Your task to perform on an android device: Play the last video I watched on Youtube Image 0: 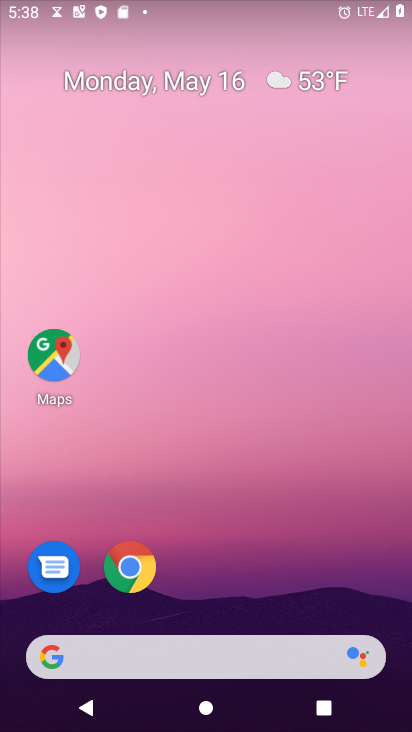
Step 0: drag from (281, 638) to (291, 220)
Your task to perform on an android device: Play the last video I watched on Youtube Image 1: 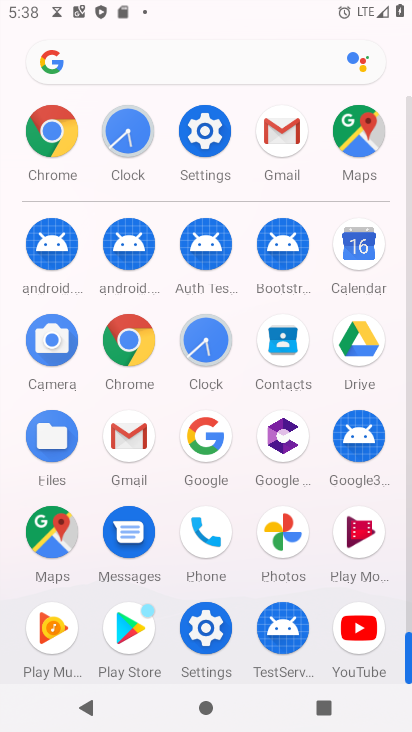
Step 1: click (353, 633)
Your task to perform on an android device: Play the last video I watched on Youtube Image 2: 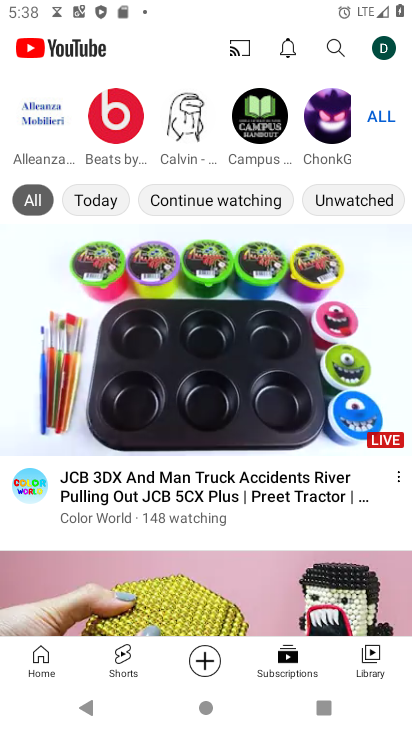
Step 2: click (356, 645)
Your task to perform on an android device: Play the last video I watched on Youtube Image 3: 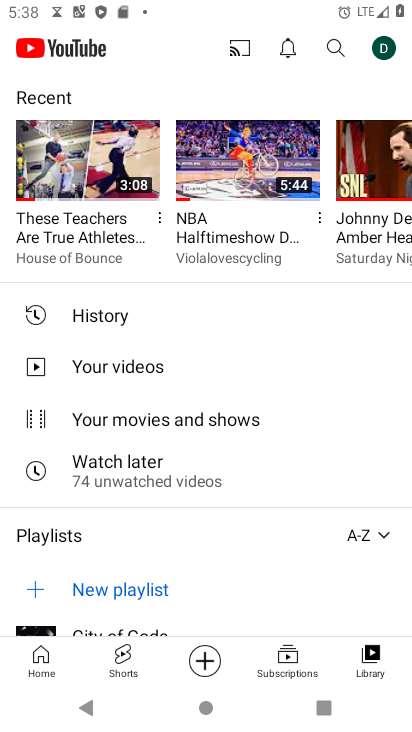
Step 3: click (92, 159)
Your task to perform on an android device: Play the last video I watched on Youtube Image 4: 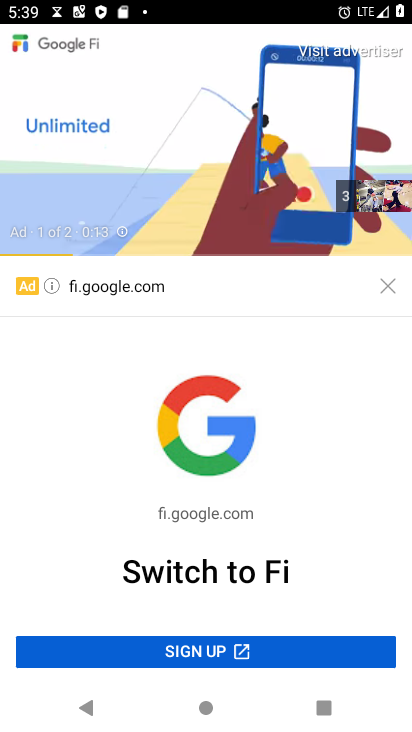
Step 4: task complete